Your task to perform on an android device: Show me popular games on the Play Store Image 0: 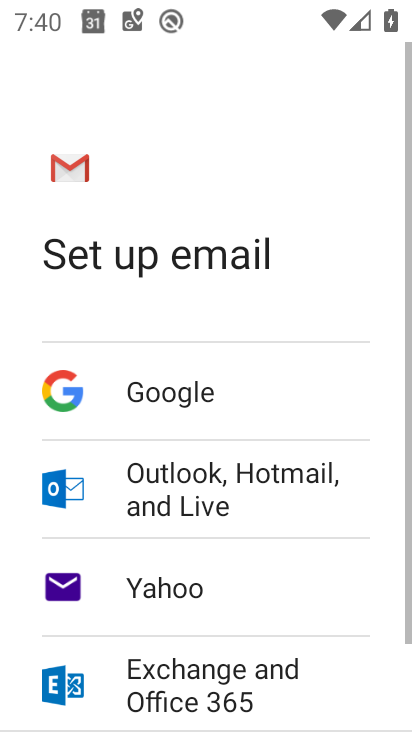
Step 0: press home button
Your task to perform on an android device: Show me popular games on the Play Store Image 1: 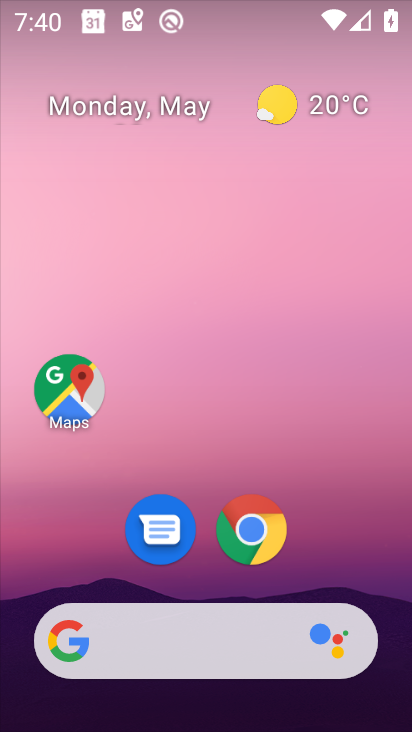
Step 1: drag from (2, 639) to (200, 141)
Your task to perform on an android device: Show me popular games on the Play Store Image 2: 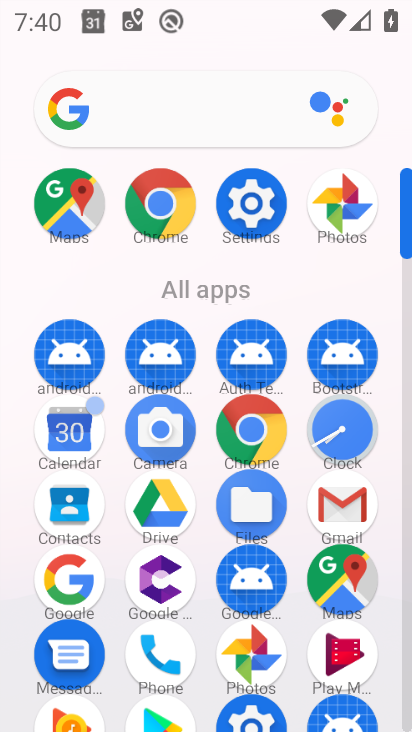
Step 2: drag from (11, 661) to (107, 223)
Your task to perform on an android device: Show me popular games on the Play Store Image 3: 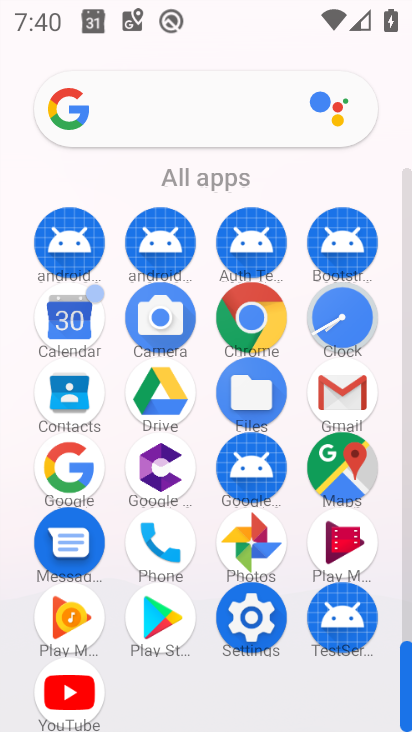
Step 3: click (153, 615)
Your task to perform on an android device: Show me popular games on the Play Store Image 4: 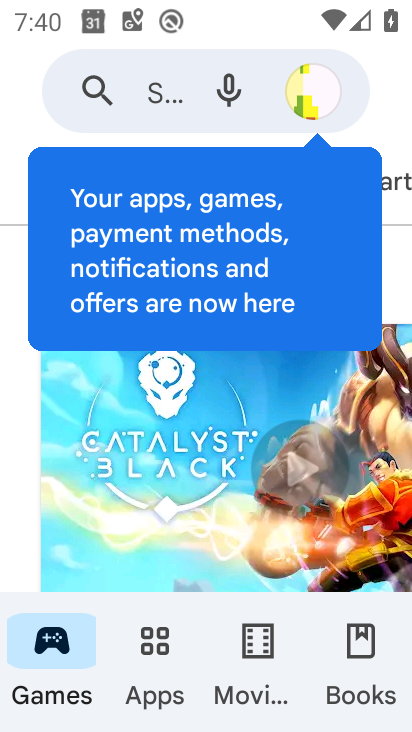
Step 4: click (59, 656)
Your task to perform on an android device: Show me popular games on the Play Store Image 5: 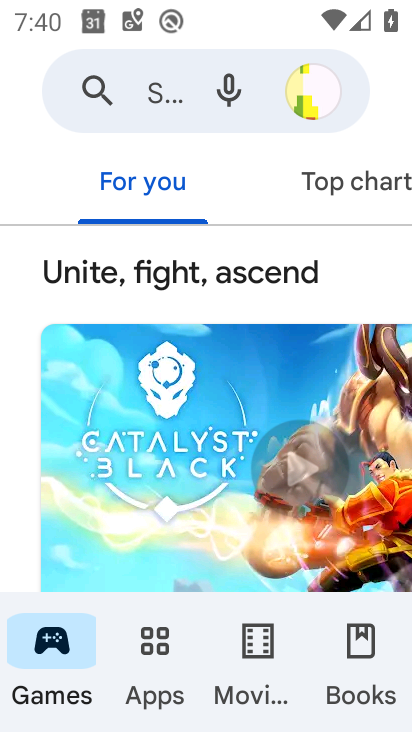
Step 5: click (325, 187)
Your task to perform on an android device: Show me popular games on the Play Store Image 6: 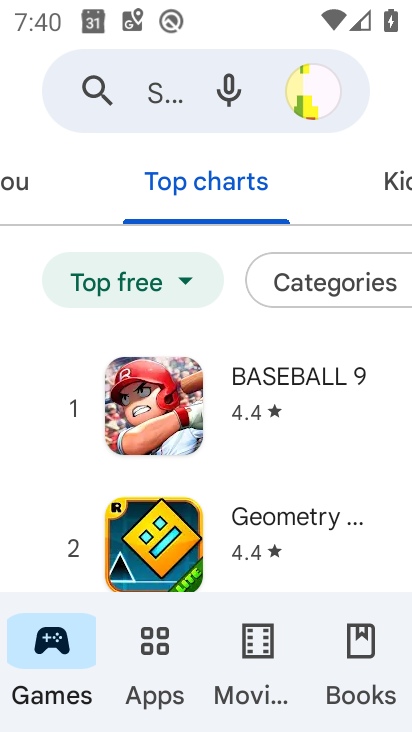
Step 6: task complete